Your task to perform on an android device: What's the weather? Image 0: 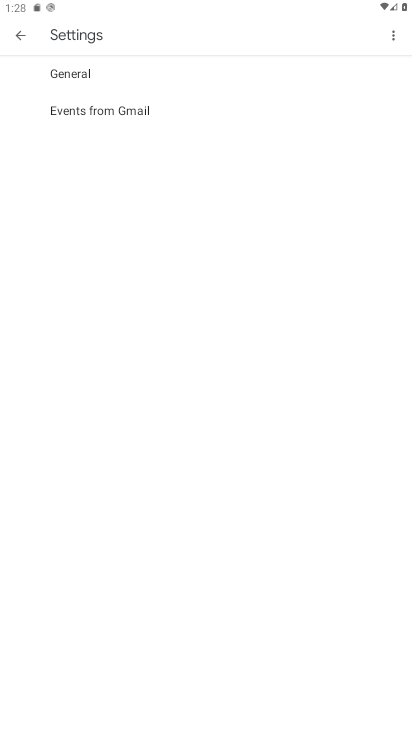
Step 0: press home button
Your task to perform on an android device: What's the weather? Image 1: 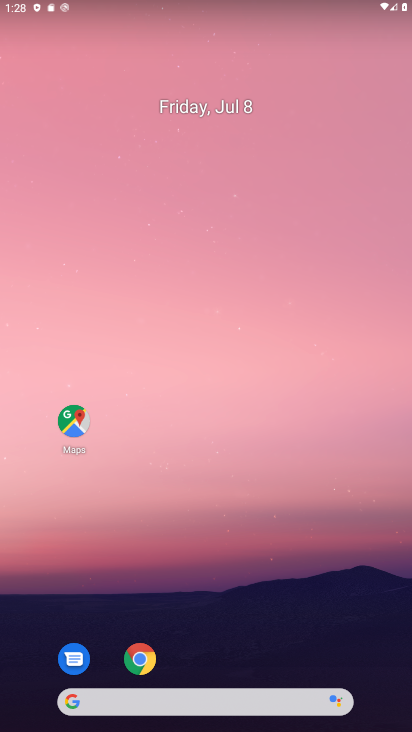
Step 1: drag from (217, 656) to (145, 175)
Your task to perform on an android device: What's the weather? Image 2: 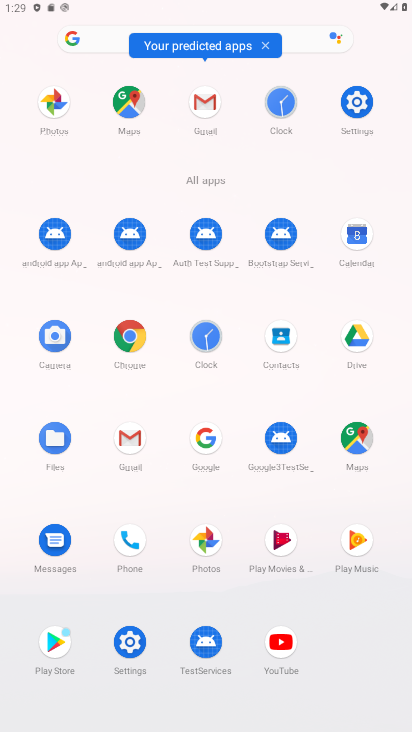
Step 2: click (212, 433)
Your task to perform on an android device: What's the weather? Image 3: 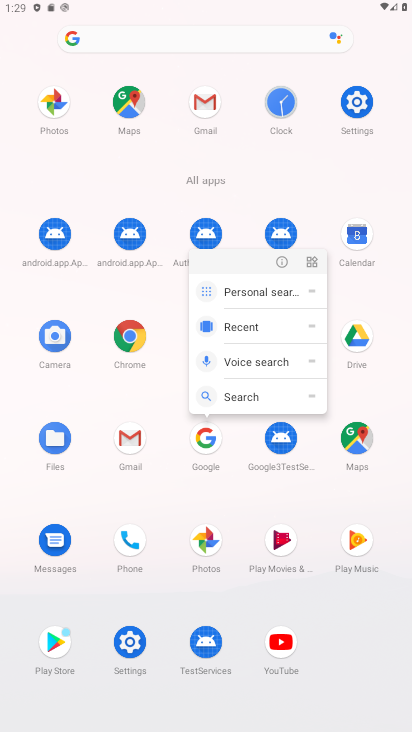
Step 3: click (205, 444)
Your task to perform on an android device: What's the weather? Image 4: 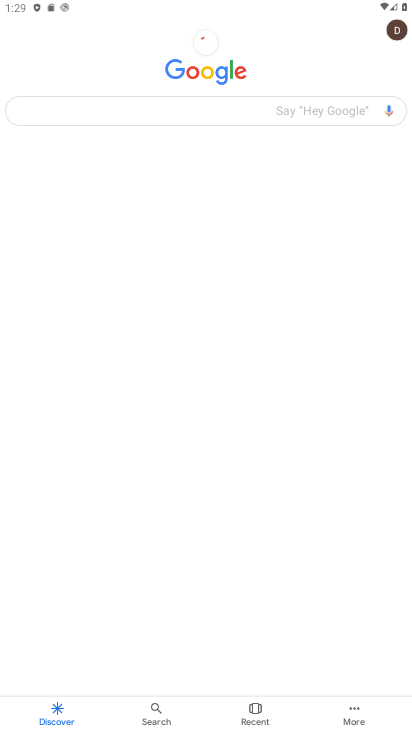
Step 4: click (138, 108)
Your task to perform on an android device: What's the weather? Image 5: 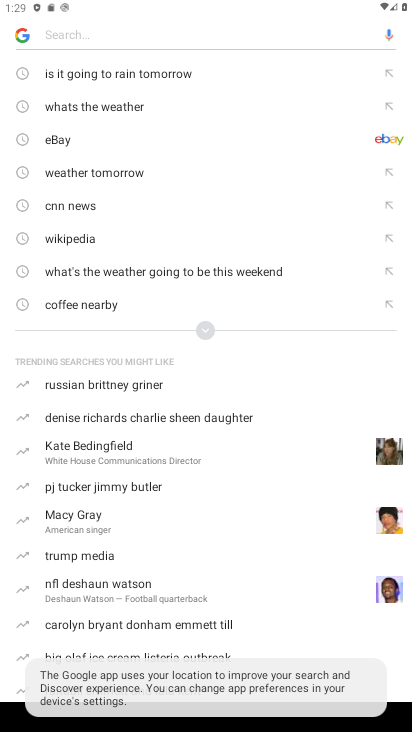
Step 5: click (77, 113)
Your task to perform on an android device: What's the weather? Image 6: 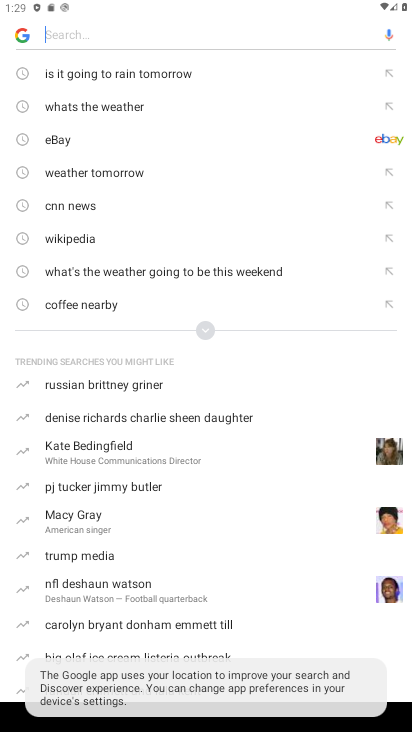
Step 6: click (77, 113)
Your task to perform on an android device: What's the weather? Image 7: 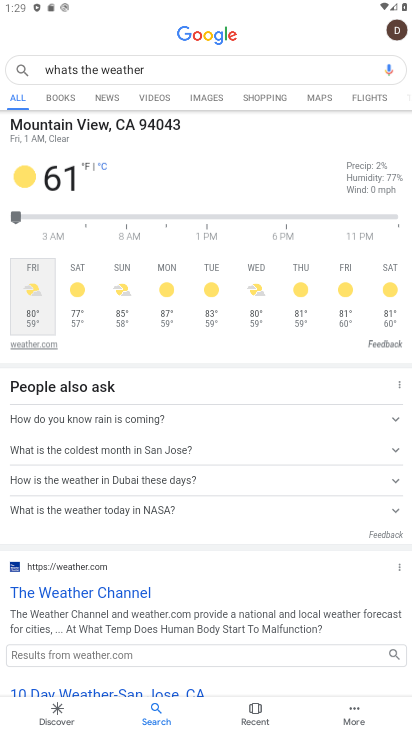
Step 7: click (36, 300)
Your task to perform on an android device: What's the weather? Image 8: 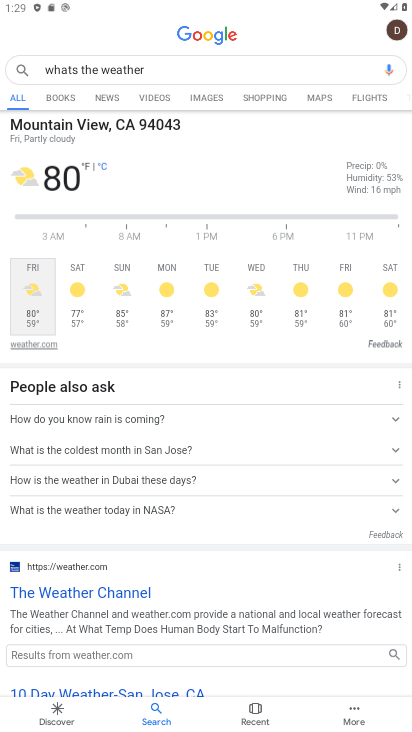
Step 8: task complete